Your task to perform on an android device: Go to Yahoo.com Image 0: 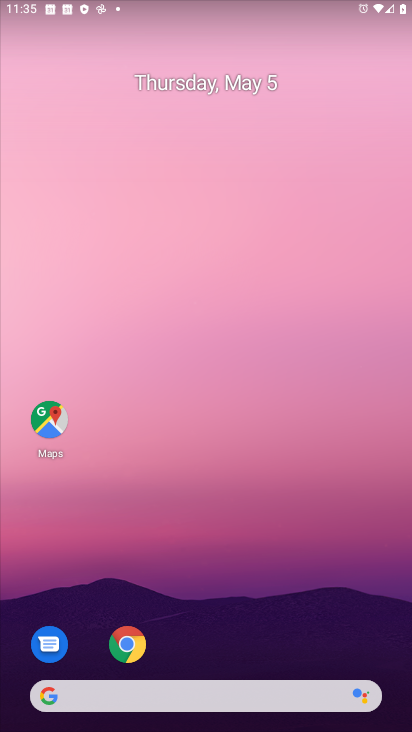
Step 0: drag from (194, 551) to (226, 156)
Your task to perform on an android device: Go to Yahoo.com Image 1: 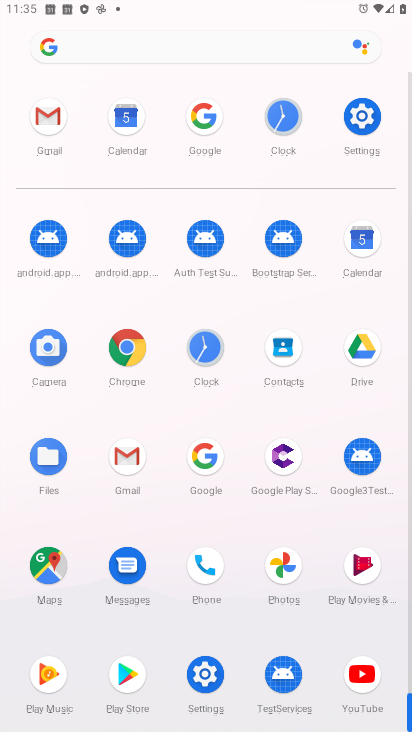
Step 1: drag from (260, 643) to (243, 83)
Your task to perform on an android device: Go to Yahoo.com Image 2: 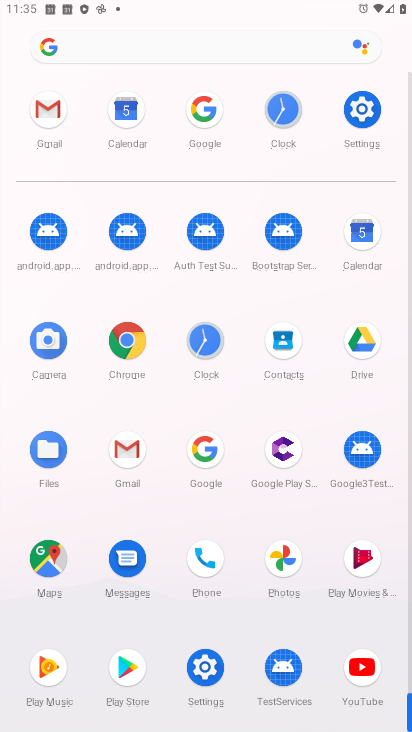
Step 2: click (125, 329)
Your task to perform on an android device: Go to Yahoo.com Image 3: 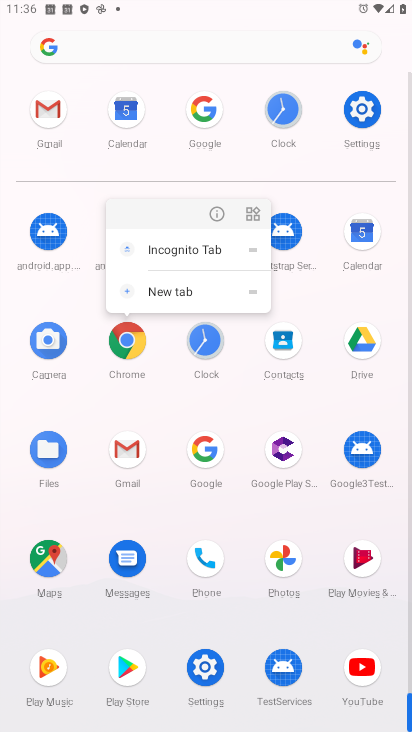
Step 3: click (214, 206)
Your task to perform on an android device: Go to Yahoo.com Image 4: 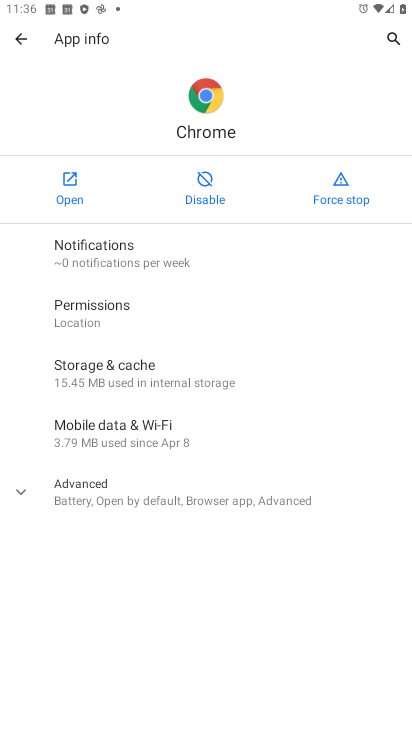
Step 4: click (75, 176)
Your task to perform on an android device: Go to Yahoo.com Image 5: 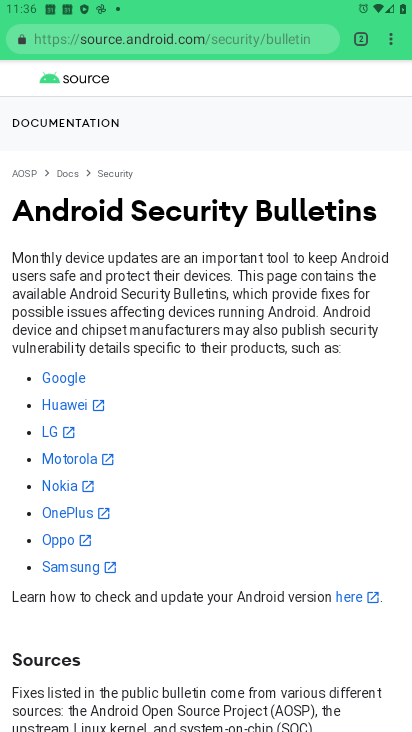
Step 5: drag from (199, 664) to (201, 315)
Your task to perform on an android device: Go to Yahoo.com Image 6: 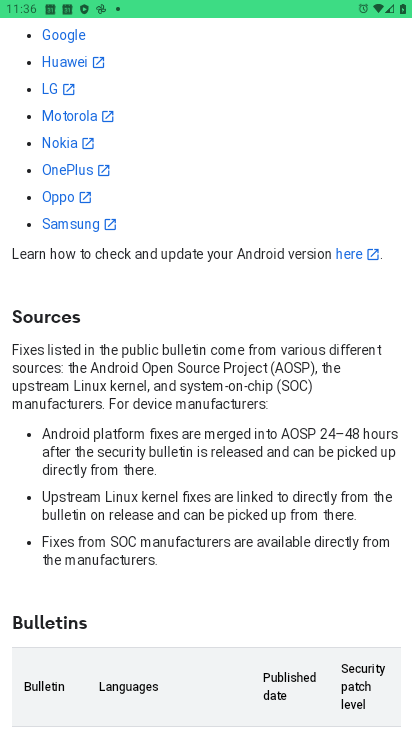
Step 6: drag from (220, 487) to (242, 9)
Your task to perform on an android device: Go to Yahoo.com Image 7: 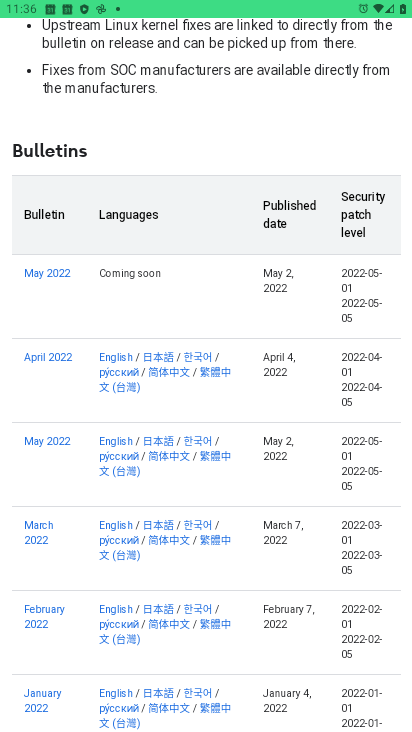
Step 7: drag from (202, 153) to (275, 595)
Your task to perform on an android device: Go to Yahoo.com Image 8: 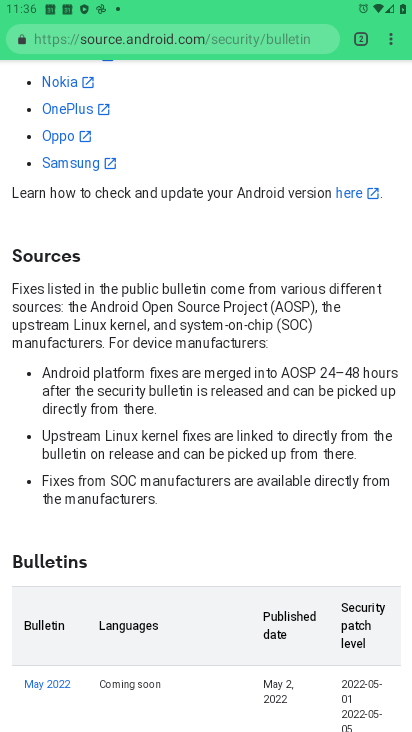
Step 8: click (254, 42)
Your task to perform on an android device: Go to Yahoo.com Image 9: 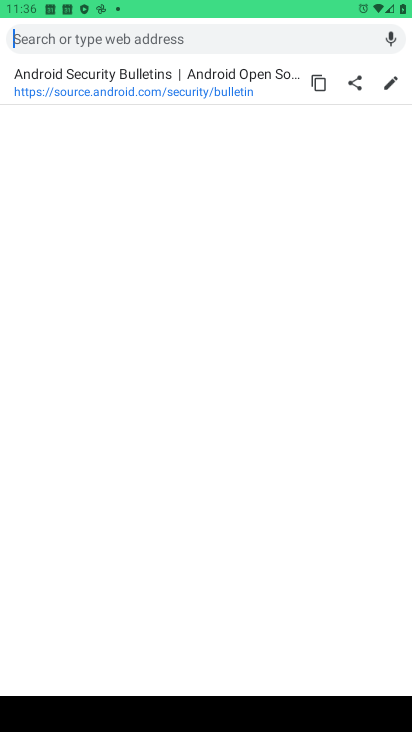
Step 9: click (207, 38)
Your task to perform on an android device: Go to Yahoo.com Image 10: 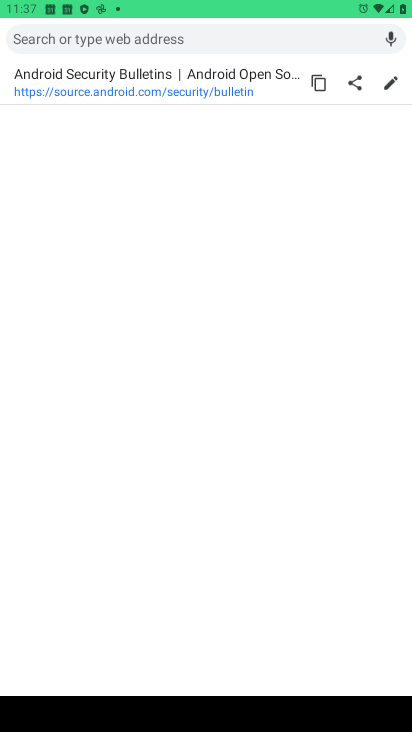
Step 10: type "yahoo"
Your task to perform on an android device: Go to Yahoo.com Image 11: 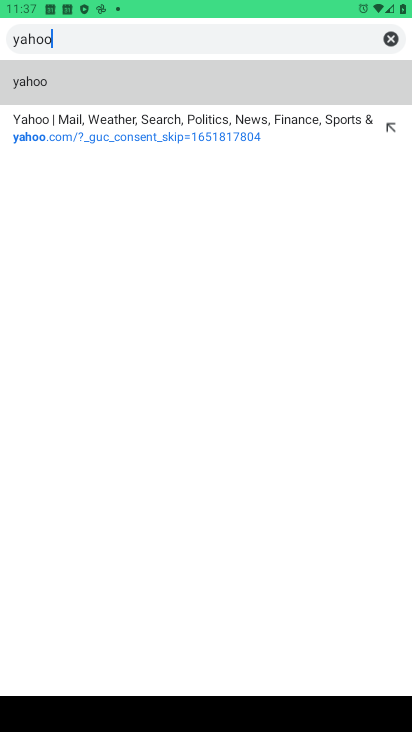
Step 11: click (61, 83)
Your task to perform on an android device: Go to Yahoo.com Image 12: 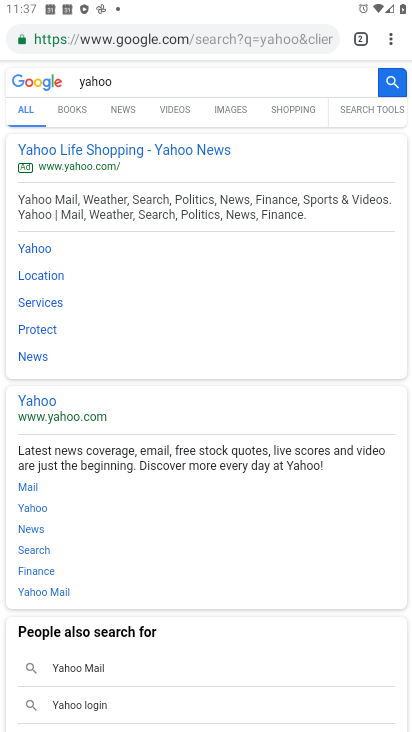
Step 12: click (73, 149)
Your task to perform on an android device: Go to Yahoo.com Image 13: 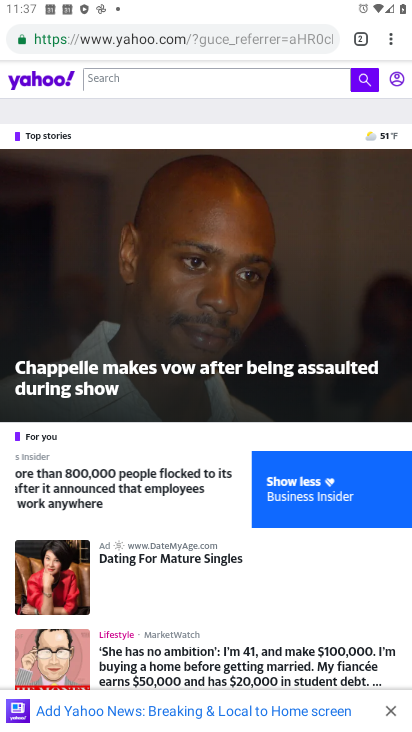
Step 13: task complete